Your task to perform on an android device: Play the last video I watched on Youtube Image 0: 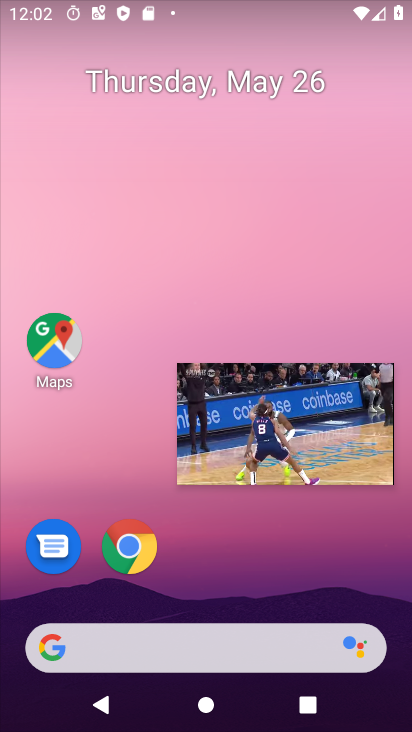
Step 0: drag from (103, 390) to (211, 13)
Your task to perform on an android device: Play the last video I watched on Youtube Image 1: 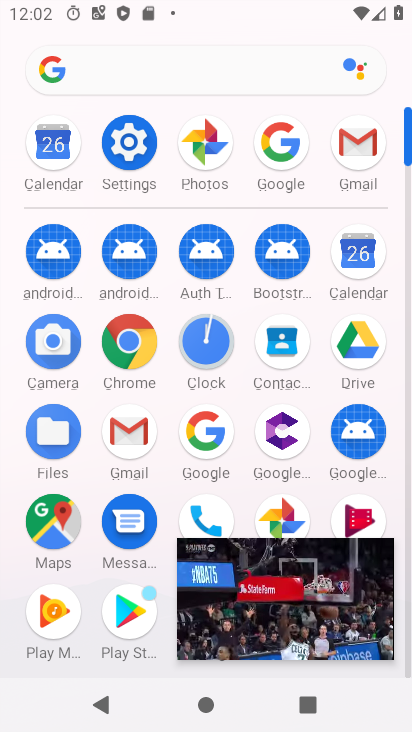
Step 1: drag from (304, 468) to (329, 10)
Your task to perform on an android device: Play the last video I watched on Youtube Image 2: 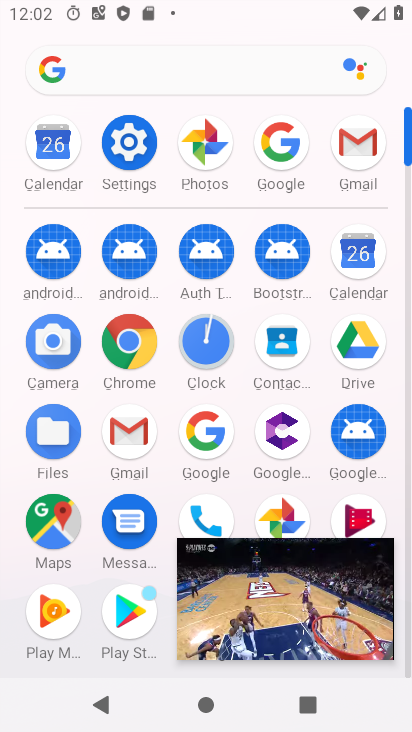
Step 2: drag from (286, 573) to (285, 241)
Your task to perform on an android device: Play the last video I watched on Youtube Image 3: 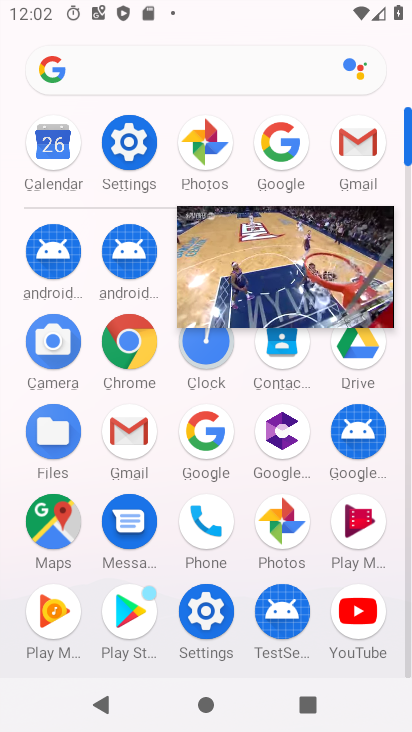
Step 3: click (347, 631)
Your task to perform on an android device: Play the last video I watched on Youtube Image 4: 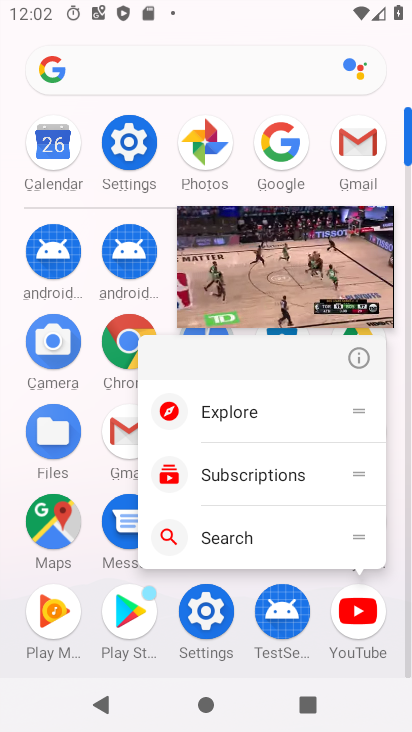
Step 4: click (346, 611)
Your task to perform on an android device: Play the last video I watched on Youtube Image 5: 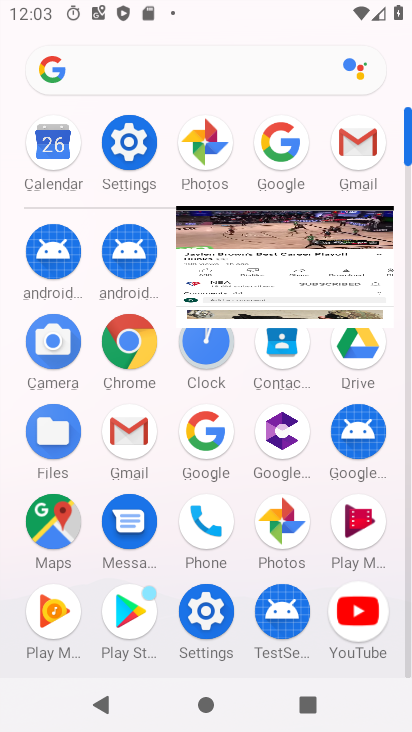
Step 5: click (342, 612)
Your task to perform on an android device: Play the last video I watched on Youtube Image 6: 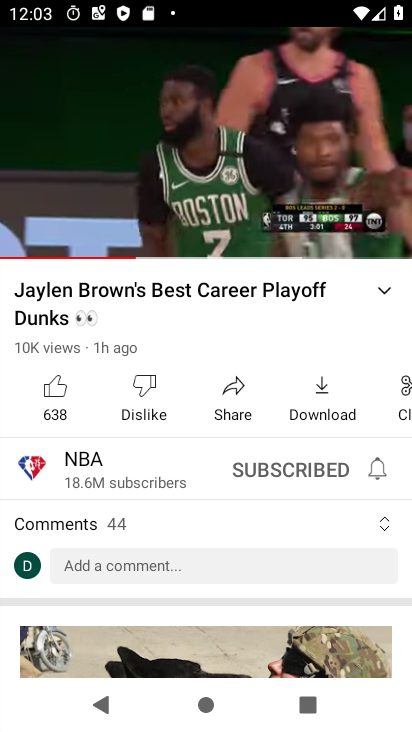
Step 6: drag from (161, 117) to (223, 620)
Your task to perform on an android device: Play the last video I watched on Youtube Image 7: 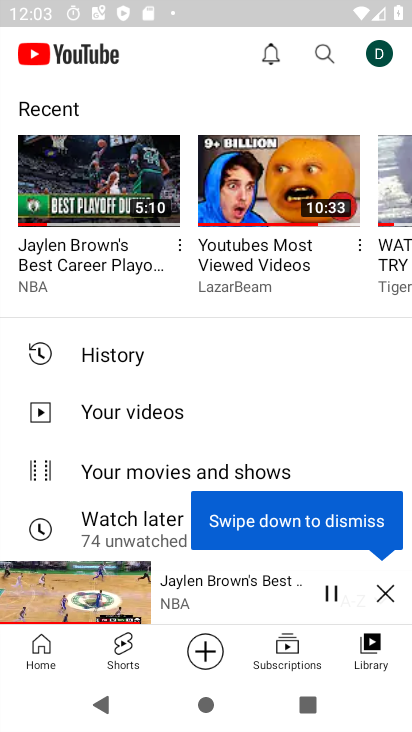
Step 7: click (54, 193)
Your task to perform on an android device: Play the last video I watched on Youtube Image 8: 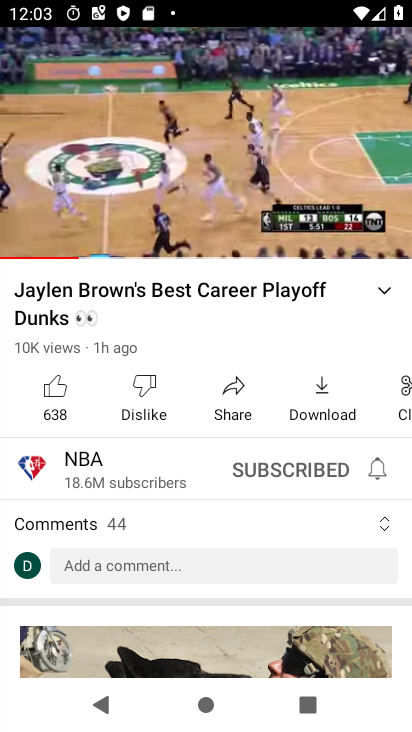
Step 8: task complete